Your task to perform on an android device: Empty the shopping cart on amazon.com. Image 0: 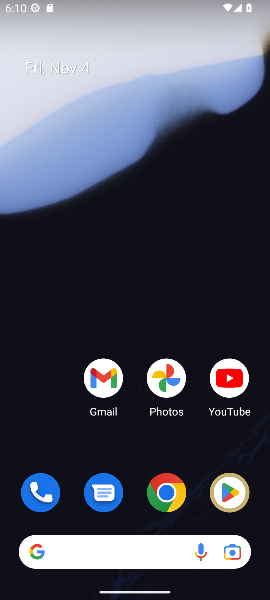
Step 0: drag from (132, 458) to (153, 54)
Your task to perform on an android device: Empty the shopping cart on amazon.com. Image 1: 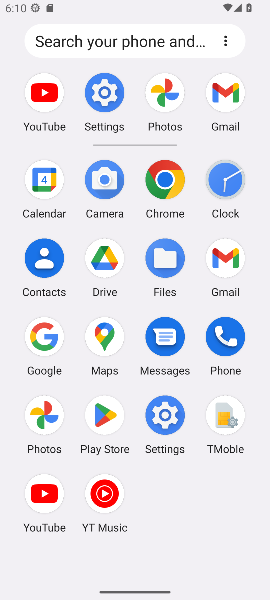
Step 1: click (166, 181)
Your task to perform on an android device: Empty the shopping cart on amazon.com. Image 2: 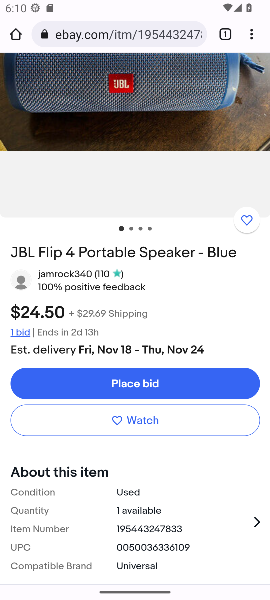
Step 2: click (164, 32)
Your task to perform on an android device: Empty the shopping cart on amazon.com. Image 3: 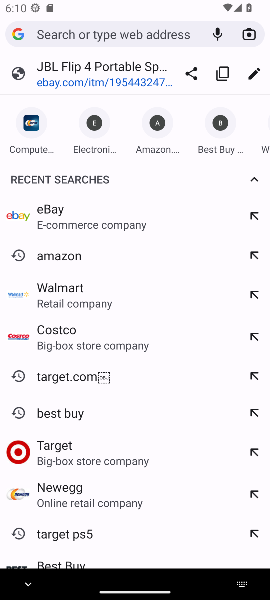
Step 3: type "amazon.com"
Your task to perform on an android device: Empty the shopping cart on amazon.com. Image 4: 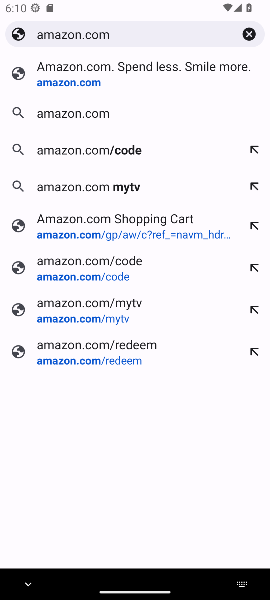
Step 4: press enter
Your task to perform on an android device: Empty the shopping cart on amazon.com. Image 5: 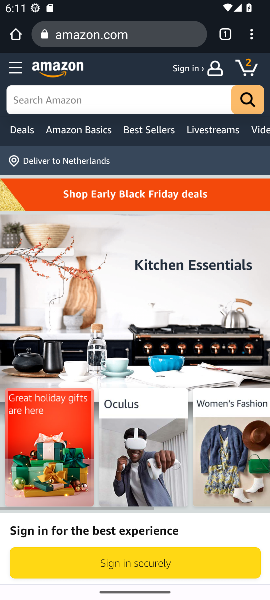
Step 5: click (243, 64)
Your task to perform on an android device: Empty the shopping cart on amazon.com. Image 6: 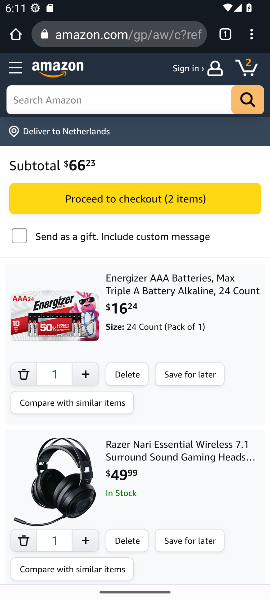
Step 6: click (26, 371)
Your task to perform on an android device: Empty the shopping cart on amazon.com. Image 7: 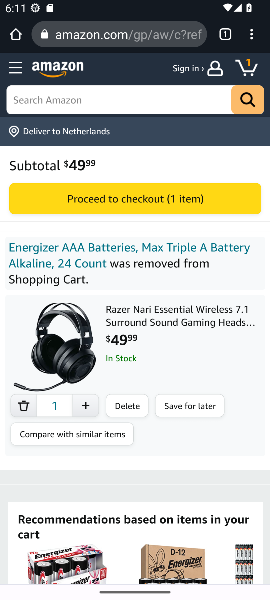
Step 7: click (24, 399)
Your task to perform on an android device: Empty the shopping cart on amazon.com. Image 8: 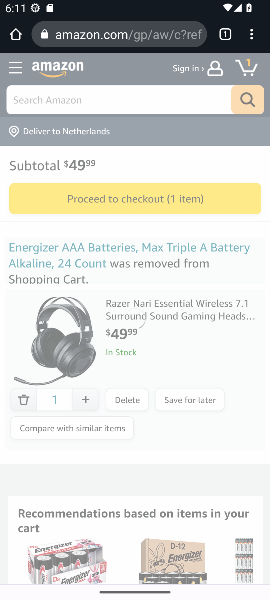
Step 8: click (21, 397)
Your task to perform on an android device: Empty the shopping cart on amazon.com. Image 9: 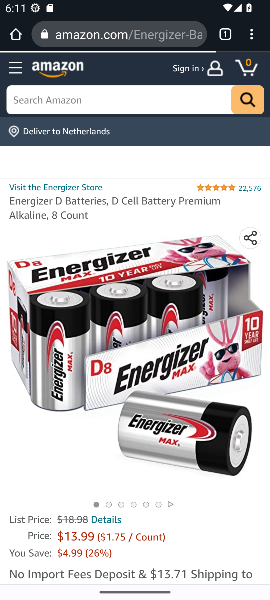
Step 9: task complete